Your task to perform on an android device: turn on the 12-hour format for clock Image 0: 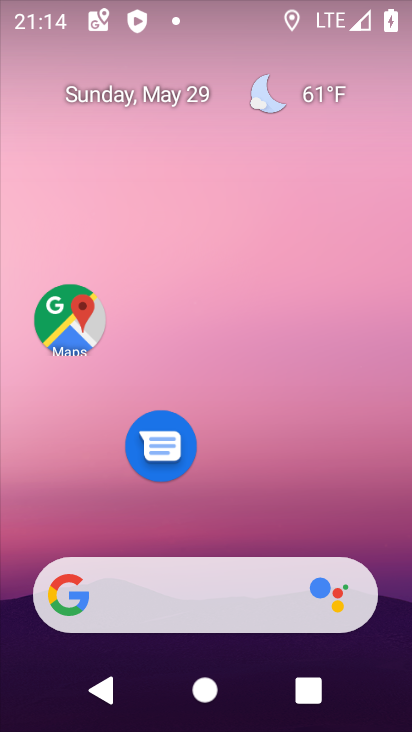
Step 0: drag from (208, 530) to (179, 88)
Your task to perform on an android device: turn on the 12-hour format for clock Image 1: 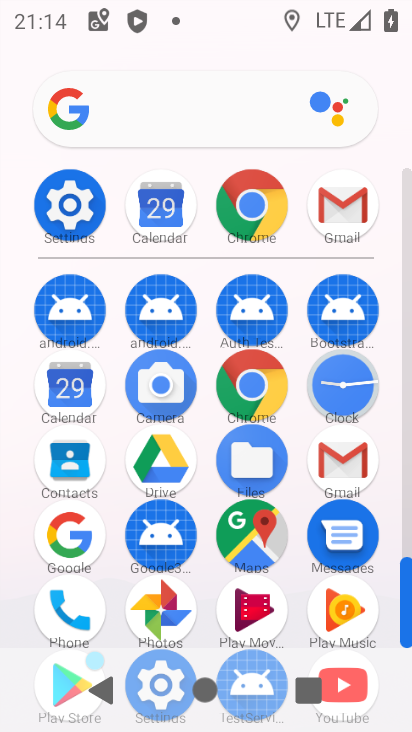
Step 1: click (332, 399)
Your task to perform on an android device: turn on the 12-hour format for clock Image 2: 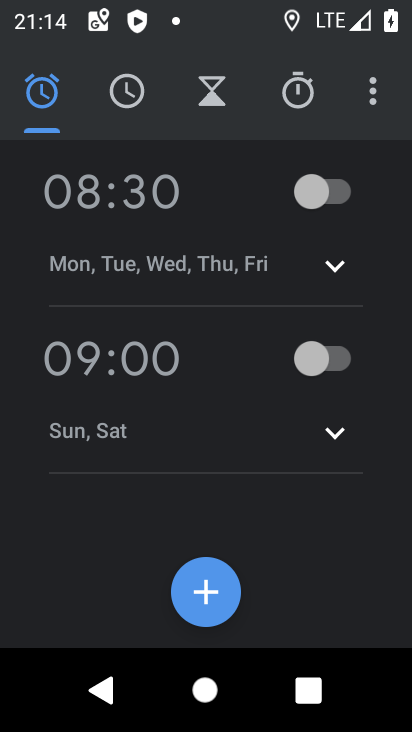
Step 2: click (375, 95)
Your task to perform on an android device: turn on the 12-hour format for clock Image 3: 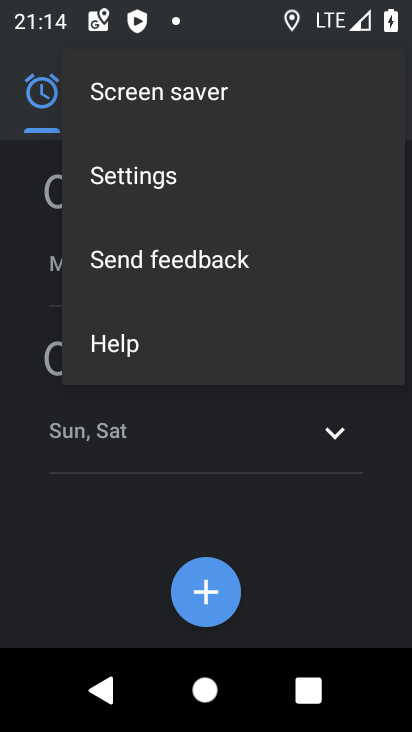
Step 3: click (224, 178)
Your task to perform on an android device: turn on the 12-hour format for clock Image 4: 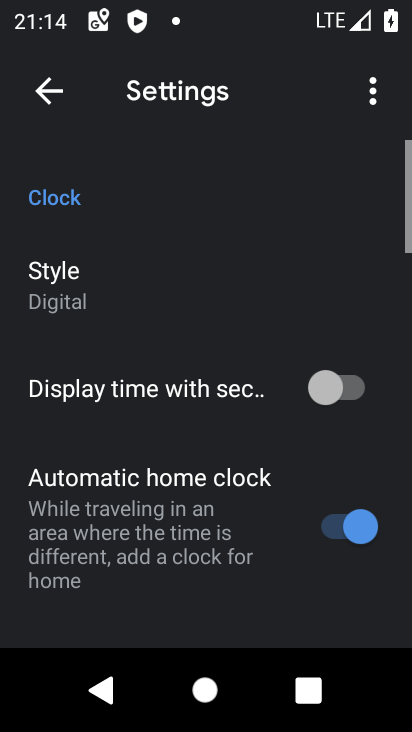
Step 4: drag from (156, 536) to (149, 195)
Your task to perform on an android device: turn on the 12-hour format for clock Image 5: 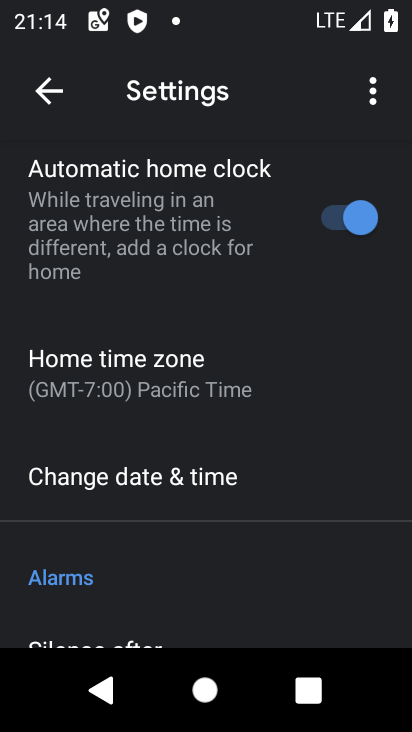
Step 5: click (164, 499)
Your task to perform on an android device: turn on the 12-hour format for clock Image 6: 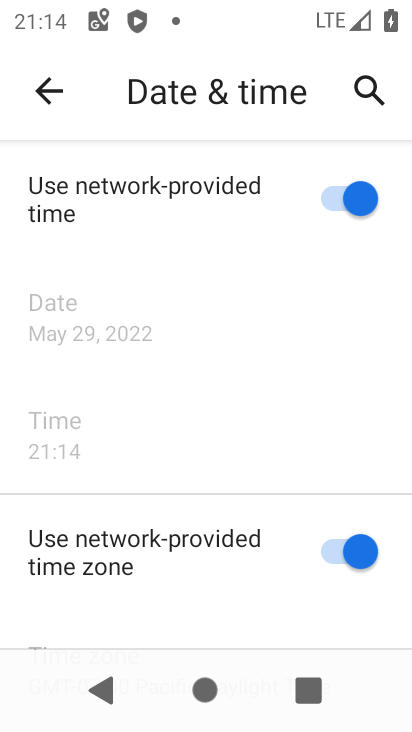
Step 6: drag from (198, 565) to (166, 231)
Your task to perform on an android device: turn on the 12-hour format for clock Image 7: 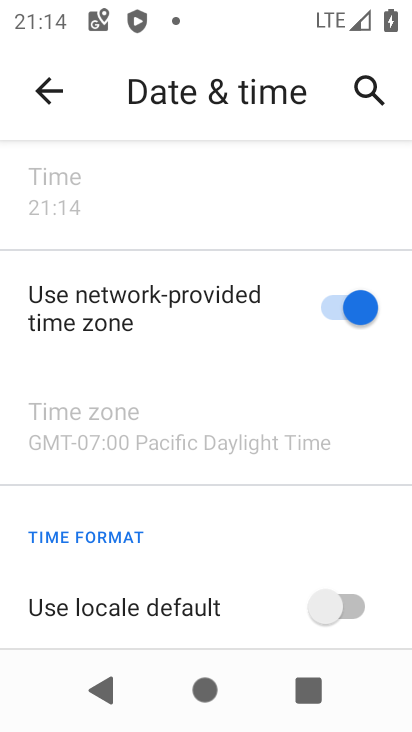
Step 7: drag from (251, 504) to (252, 198)
Your task to perform on an android device: turn on the 12-hour format for clock Image 8: 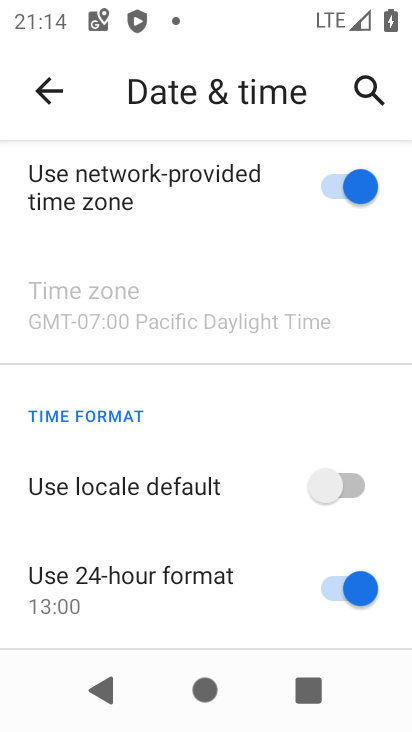
Step 8: click (352, 470)
Your task to perform on an android device: turn on the 12-hour format for clock Image 9: 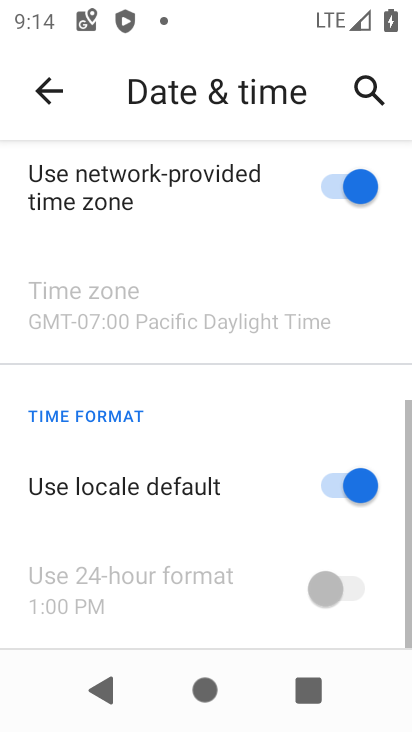
Step 9: task complete